Your task to perform on an android device: choose inbox layout in the gmail app Image 0: 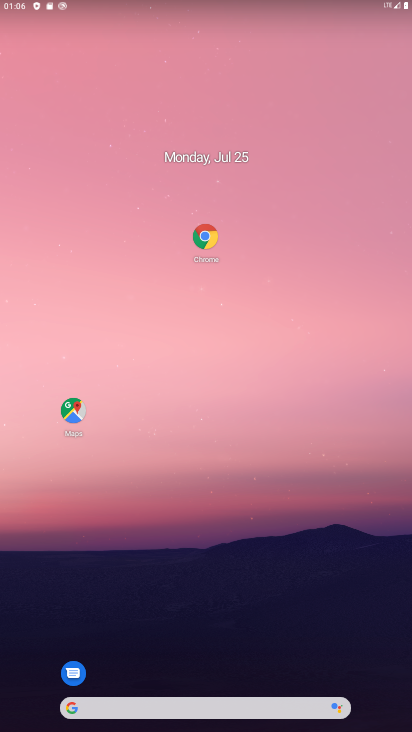
Step 0: drag from (199, 690) to (345, 2)
Your task to perform on an android device: choose inbox layout in the gmail app Image 1: 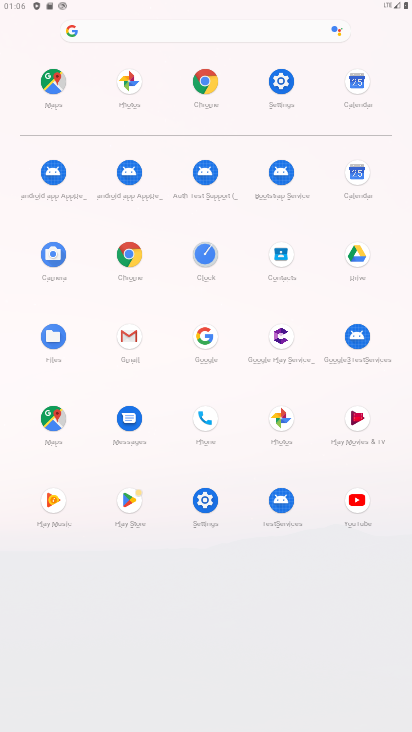
Step 1: click (137, 342)
Your task to perform on an android device: choose inbox layout in the gmail app Image 2: 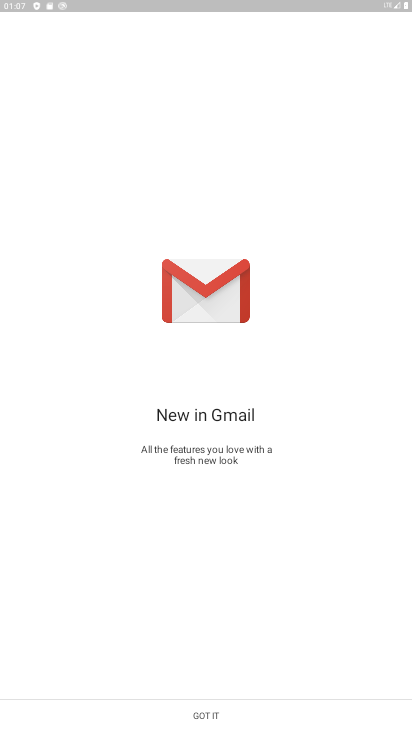
Step 2: click (182, 714)
Your task to perform on an android device: choose inbox layout in the gmail app Image 3: 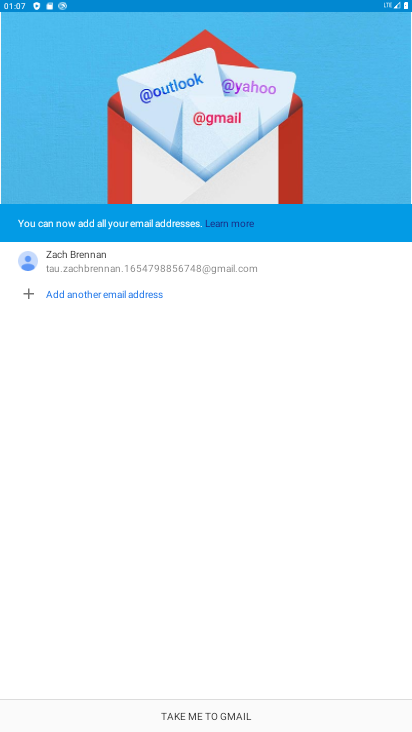
Step 3: click (272, 715)
Your task to perform on an android device: choose inbox layout in the gmail app Image 4: 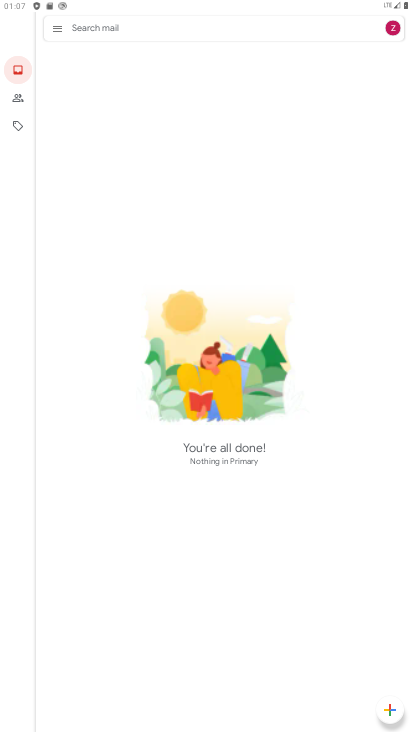
Step 4: click (59, 25)
Your task to perform on an android device: choose inbox layout in the gmail app Image 5: 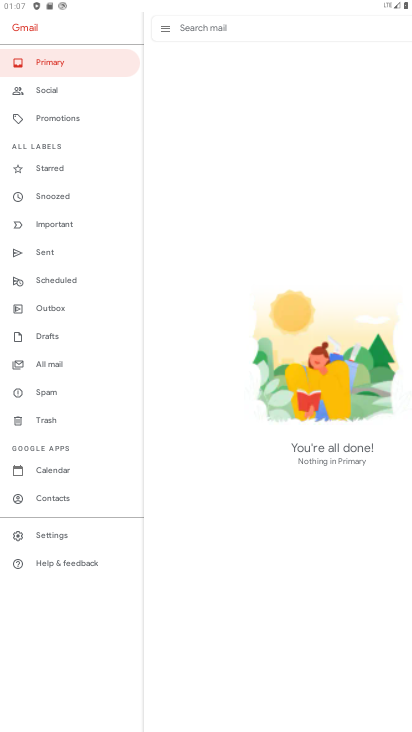
Step 5: click (73, 531)
Your task to perform on an android device: choose inbox layout in the gmail app Image 6: 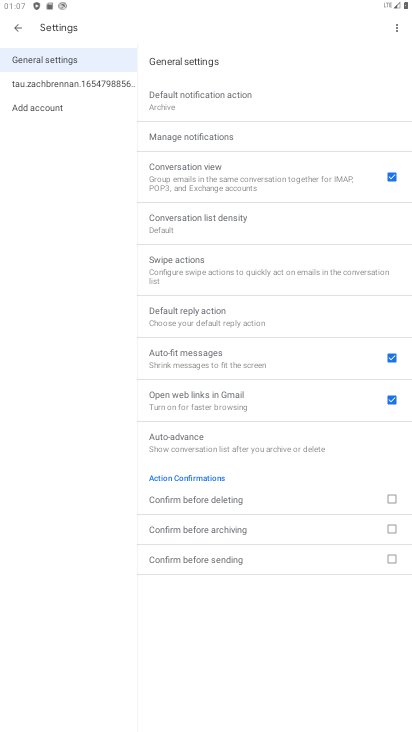
Step 6: click (62, 87)
Your task to perform on an android device: choose inbox layout in the gmail app Image 7: 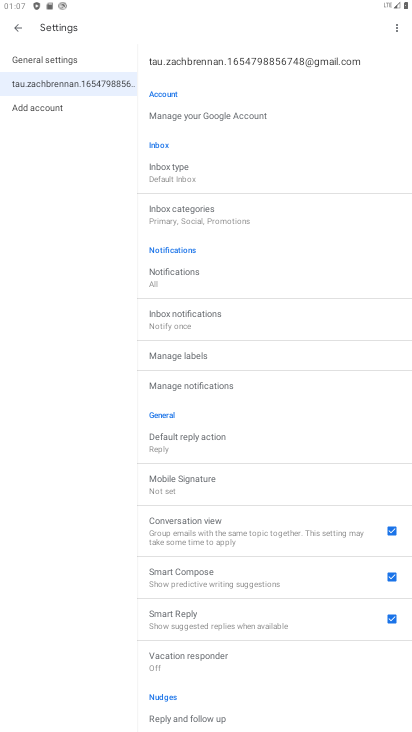
Step 7: click (188, 180)
Your task to perform on an android device: choose inbox layout in the gmail app Image 8: 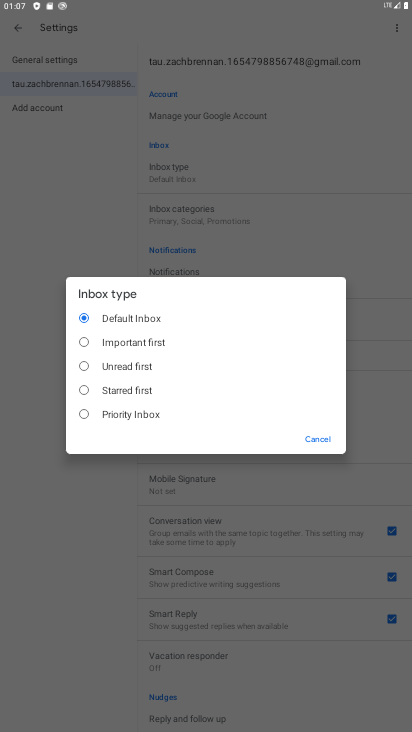
Step 8: click (79, 413)
Your task to perform on an android device: choose inbox layout in the gmail app Image 9: 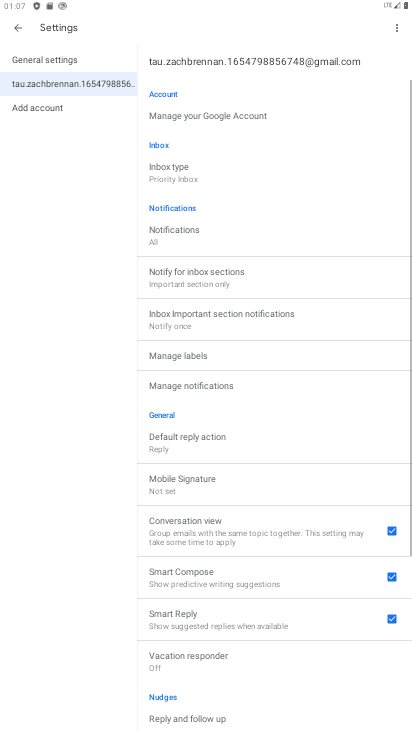
Step 9: task complete